Your task to perform on an android device: Go to sound settings Image 0: 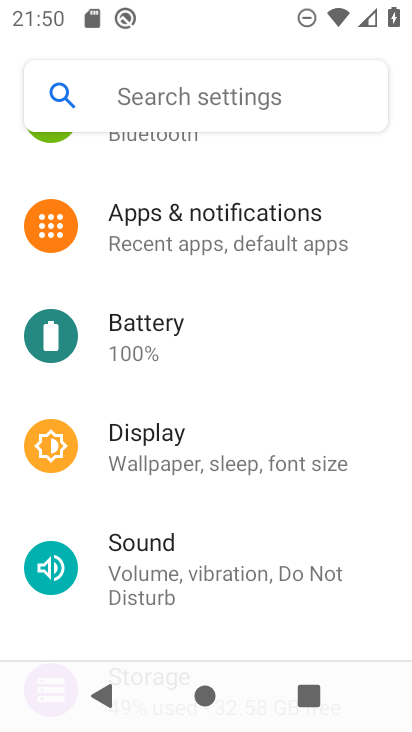
Step 0: press home button
Your task to perform on an android device: Go to sound settings Image 1: 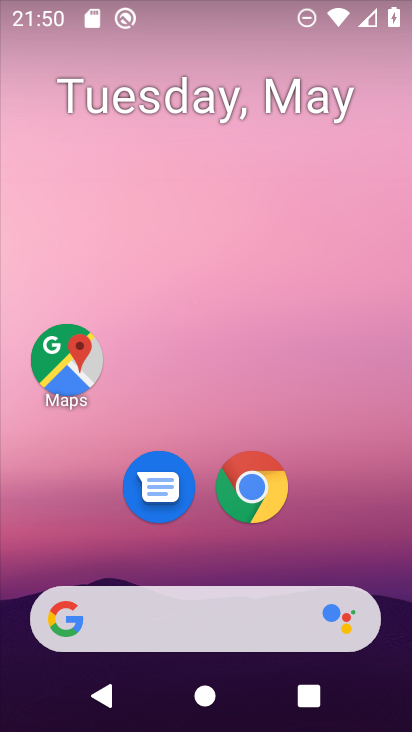
Step 1: drag from (155, 632) to (313, 75)
Your task to perform on an android device: Go to sound settings Image 2: 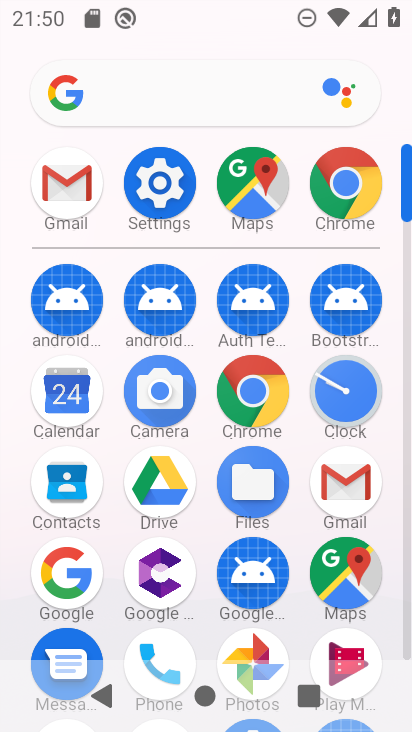
Step 2: click (162, 184)
Your task to perform on an android device: Go to sound settings Image 3: 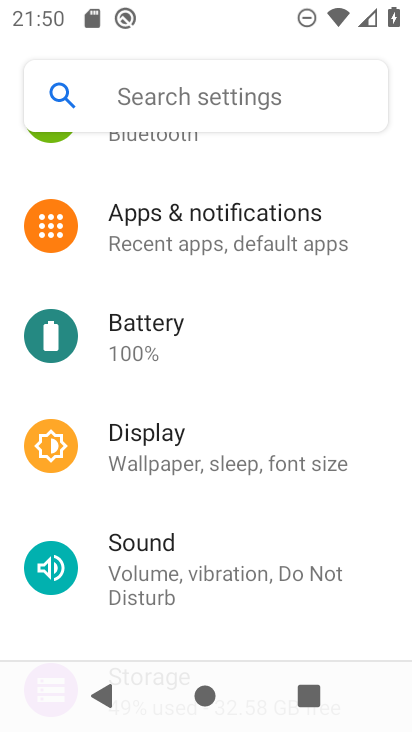
Step 3: click (159, 563)
Your task to perform on an android device: Go to sound settings Image 4: 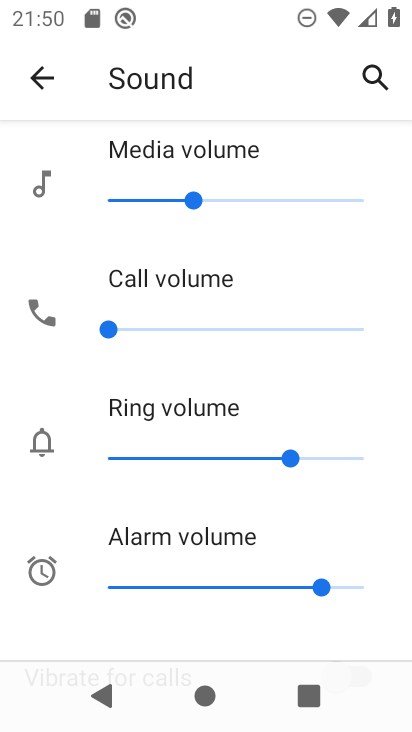
Step 4: task complete